Your task to perform on an android device: open chrome and create a bookmark for the current page Image 0: 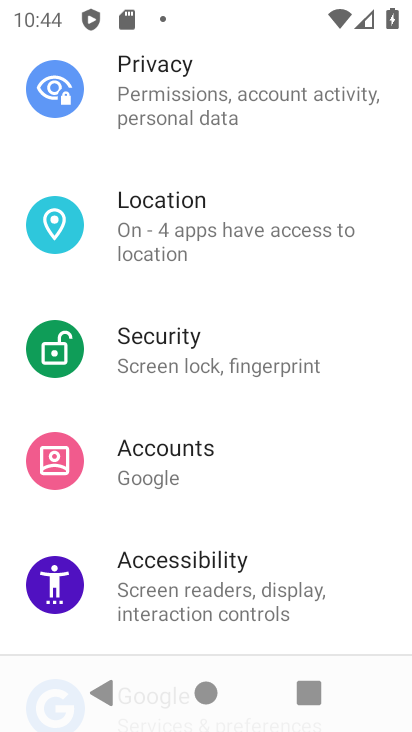
Step 0: click (180, 604)
Your task to perform on an android device: open chrome and create a bookmark for the current page Image 1: 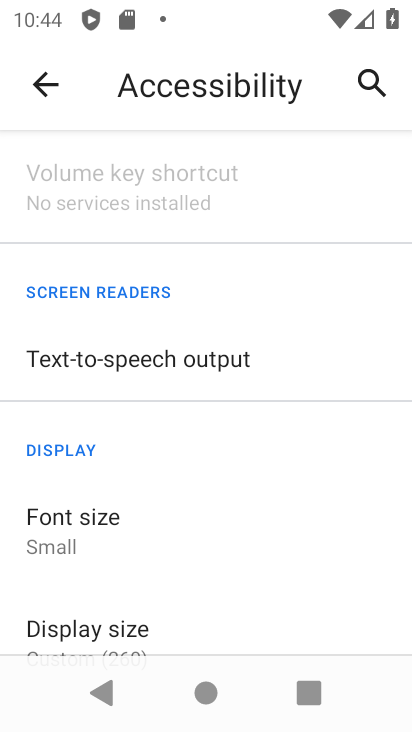
Step 1: click (86, 516)
Your task to perform on an android device: open chrome and create a bookmark for the current page Image 2: 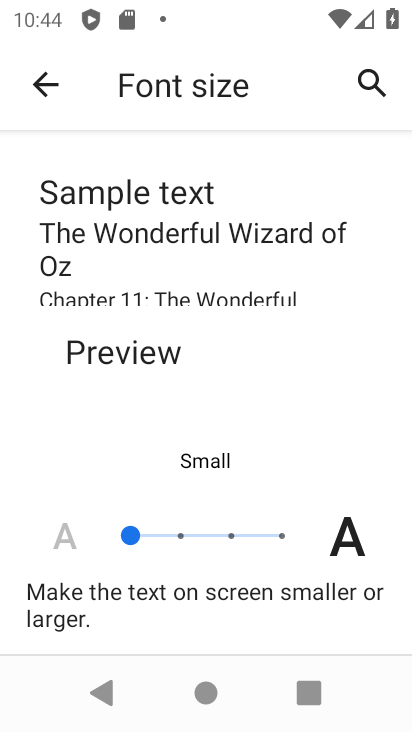
Step 2: click (177, 528)
Your task to perform on an android device: open chrome and create a bookmark for the current page Image 3: 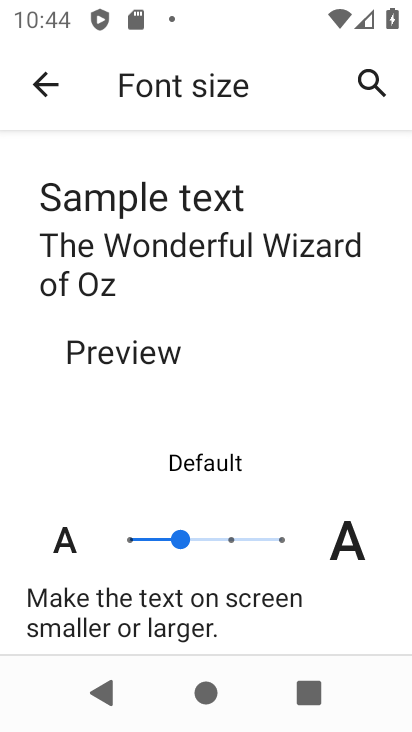
Step 3: task complete